Your task to perform on an android device: Go to display settings Image 0: 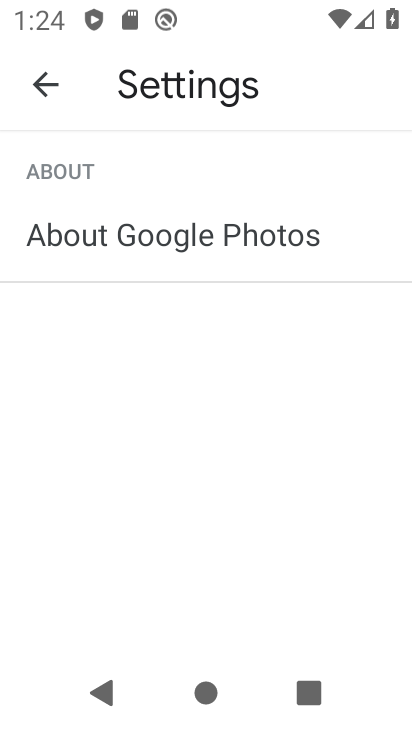
Step 0: press back button
Your task to perform on an android device: Go to display settings Image 1: 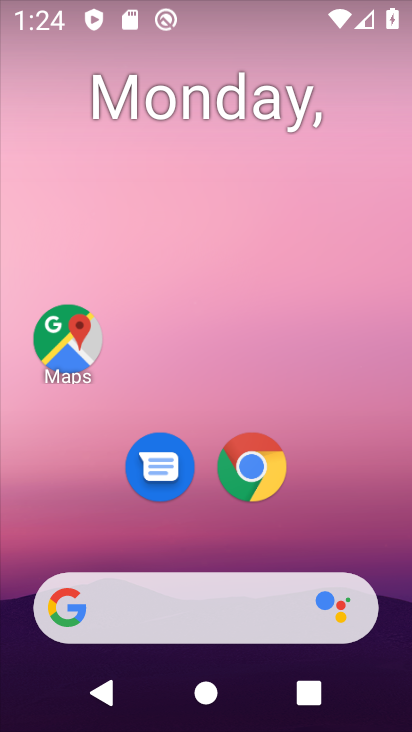
Step 1: drag from (139, 588) to (254, 73)
Your task to perform on an android device: Go to display settings Image 2: 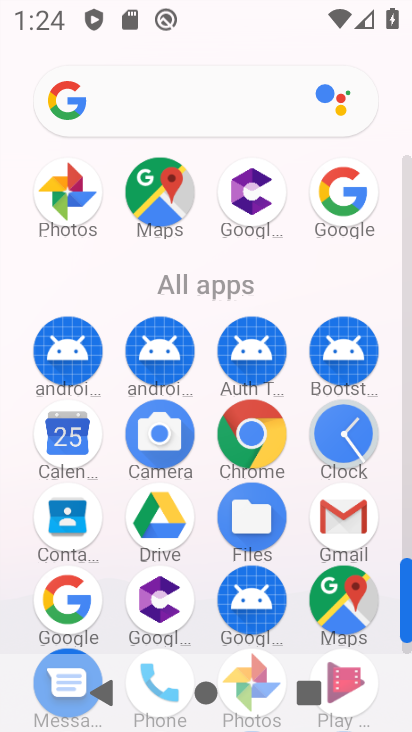
Step 2: drag from (169, 669) to (319, 176)
Your task to perform on an android device: Go to display settings Image 3: 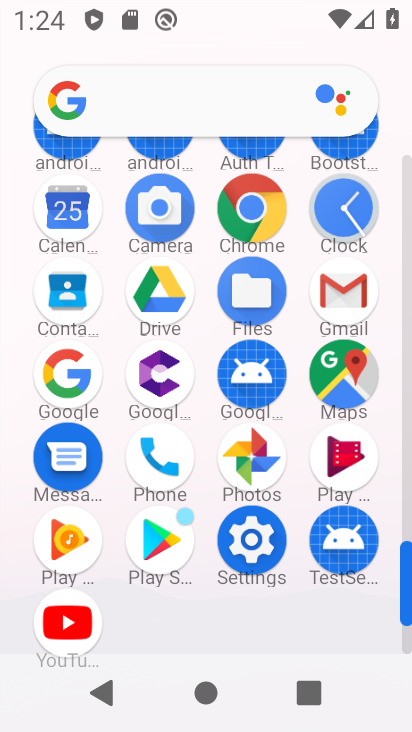
Step 3: click (258, 557)
Your task to perform on an android device: Go to display settings Image 4: 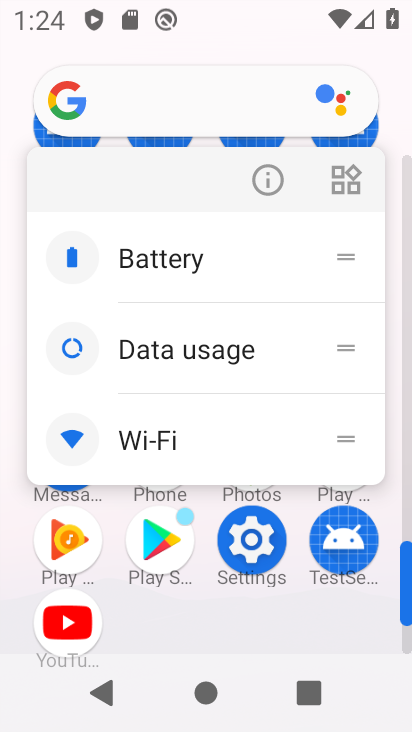
Step 4: click (258, 541)
Your task to perform on an android device: Go to display settings Image 5: 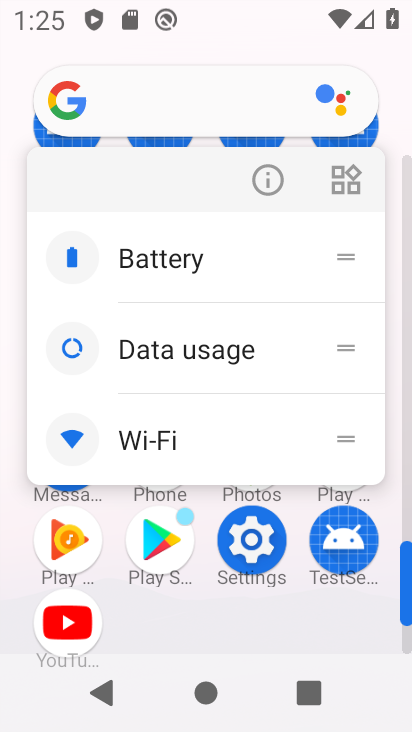
Step 5: click (242, 545)
Your task to perform on an android device: Go to display settings Image 6: 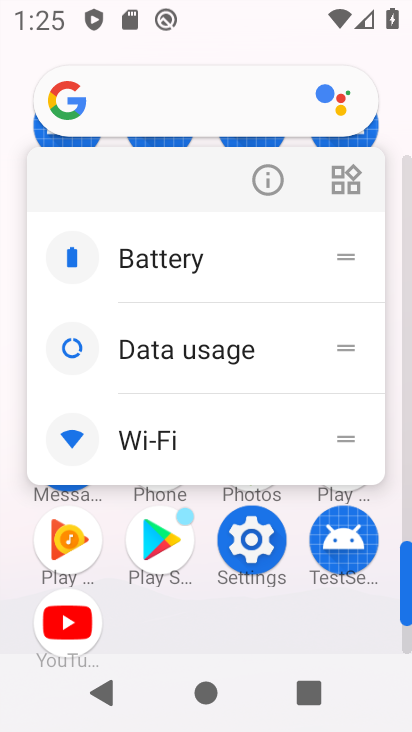
Step 6: click (246, 544)
Your task to perform on an android device: Go to display settings Image 7: 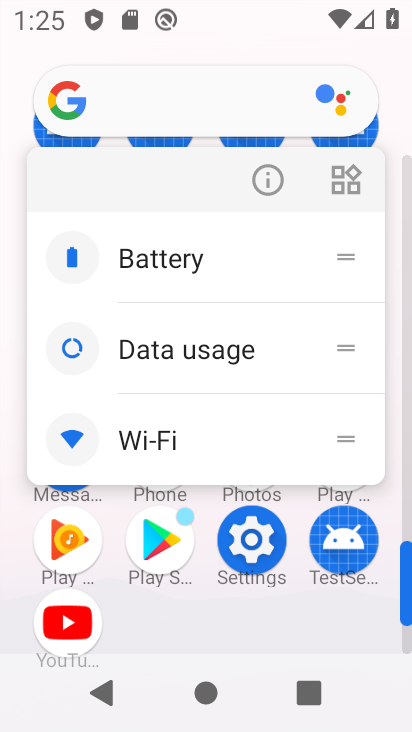
Step 7: click (262, 539)
Your task to perform on an android device: Go to display settings Image 8: 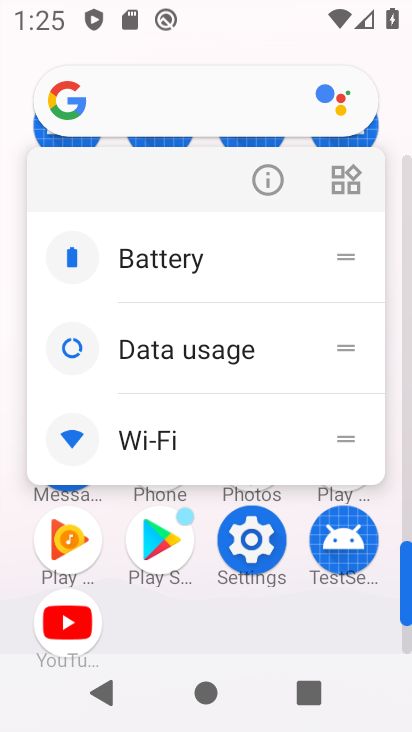
Step 8: click (252, 533)
Your task to perform on an android device: Go to display settings Image 9: 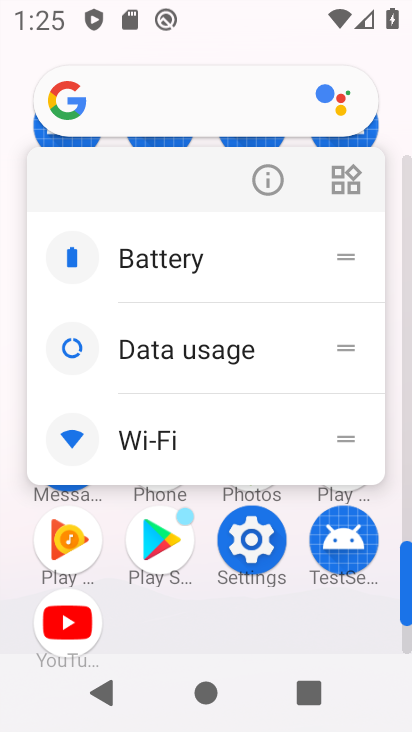
Step 9: click (240, 545)
Your task to perform on an android device: Go to display settings Image 10: 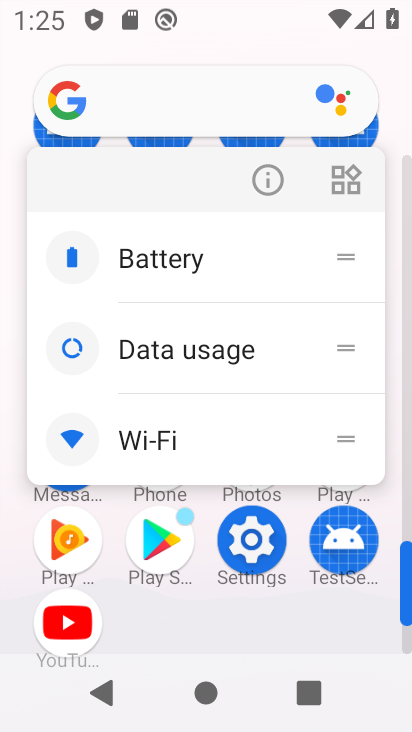
Step 10: click (250, 542)
Your task to perform on an android device: Go to display settings Image 11: 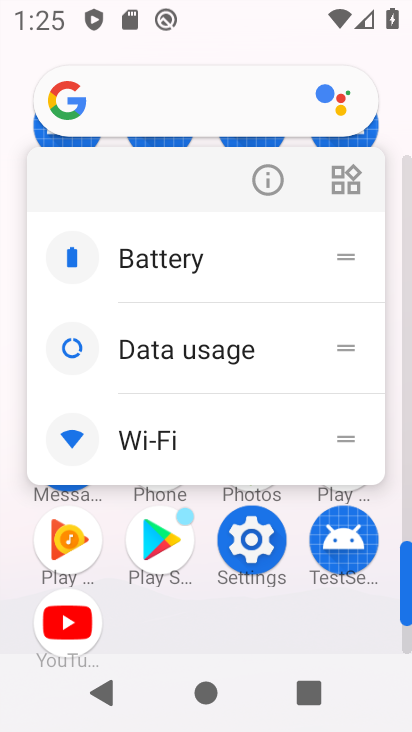
Step 11: click (262, 539)
Your task to perform on an android device: Go to display settings Image 12: 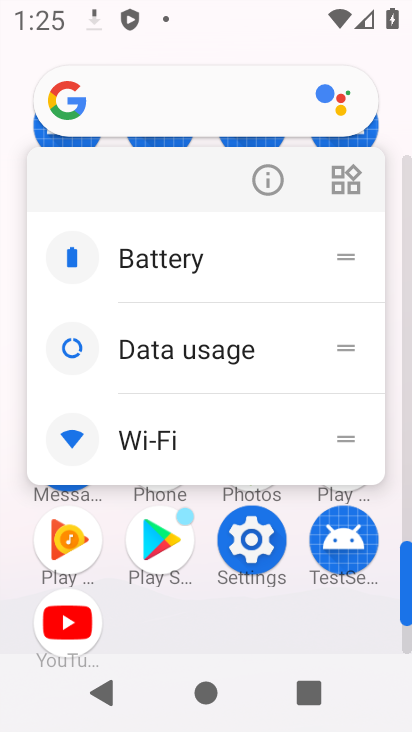
Step 12: click (254, 541)
Your task to perform on an android device: Go to display settings Image 13: 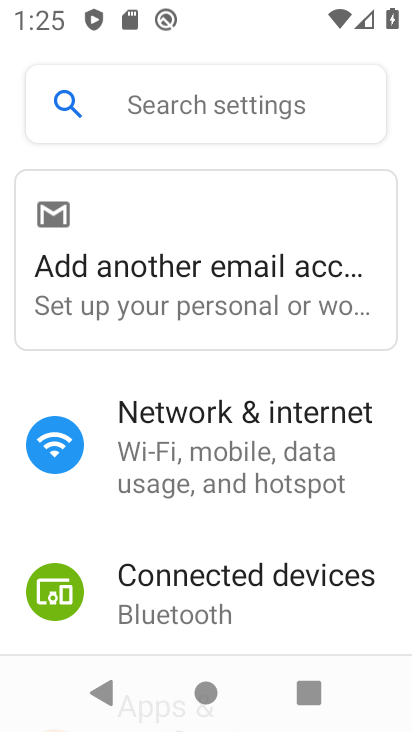
Step 13: drag from (216, 613) to (346, 113)
Your task to perform on an android device: Go to display settings Image 14: 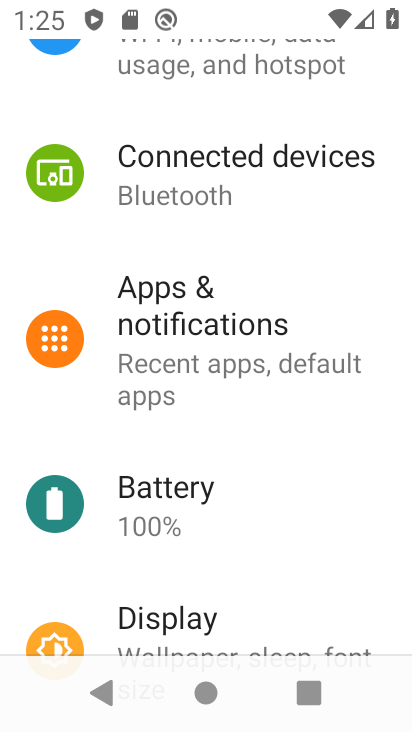
Step 14: drag from (139, 609) to (252, 274)
Your task to perform on an android device: Go to display settings Image 15: 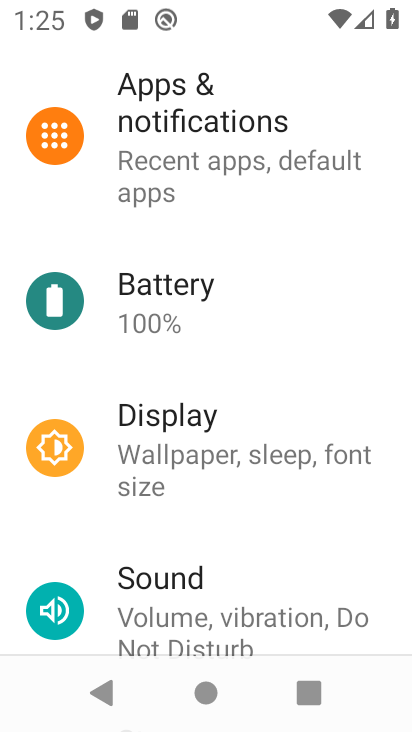
Step 15: click (181, 431)
Your task to perform on an android device: Go to display settings Image 16: 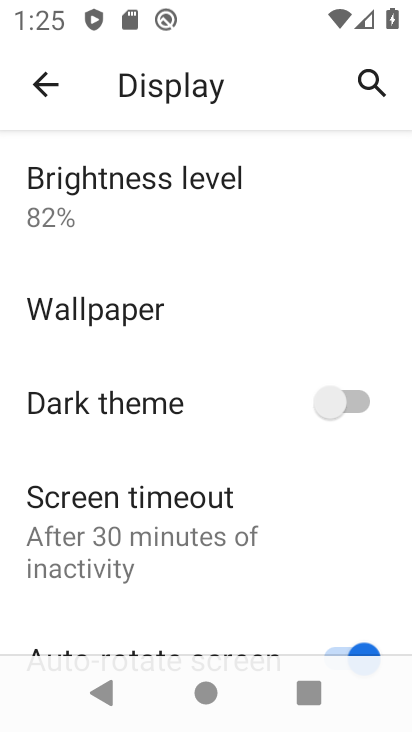
Step 16: task complete